Your task to perform on an android device: all mails in gmail Image 0: 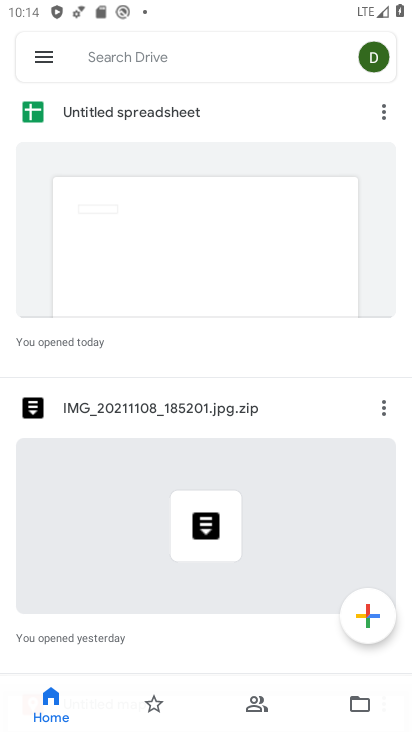
Step 0: press home button
Your task to perform on an android device: all mails in gmail Image 1: 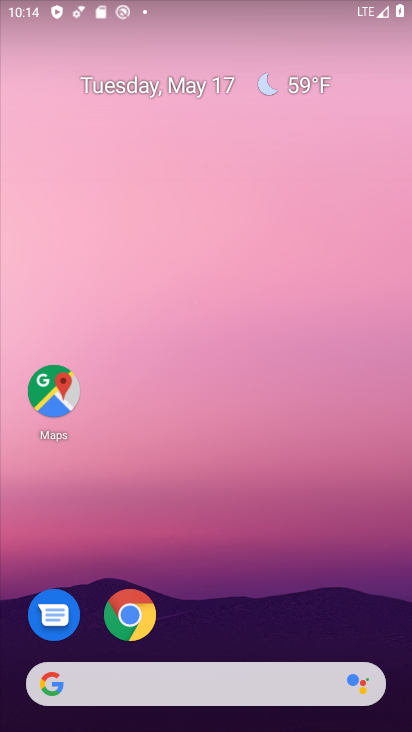
Step 1: drag from (209, 675) to (311, 107)
Your task to perform on an android device: all mails in gmail Image 2: 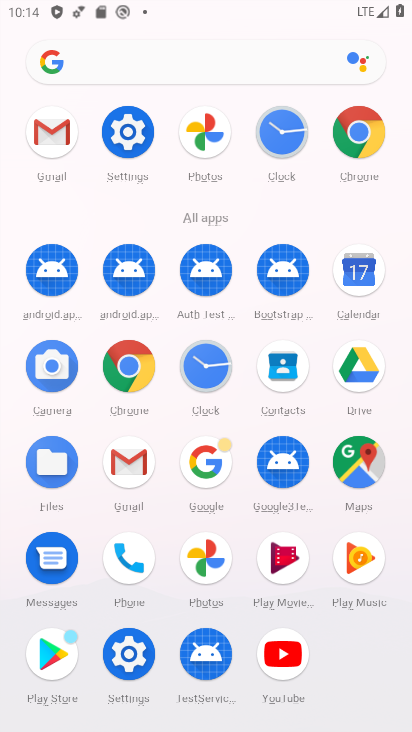
Step 2: click (63, 138)
Your task to perform on an android device: all mails in gmail Image 3: 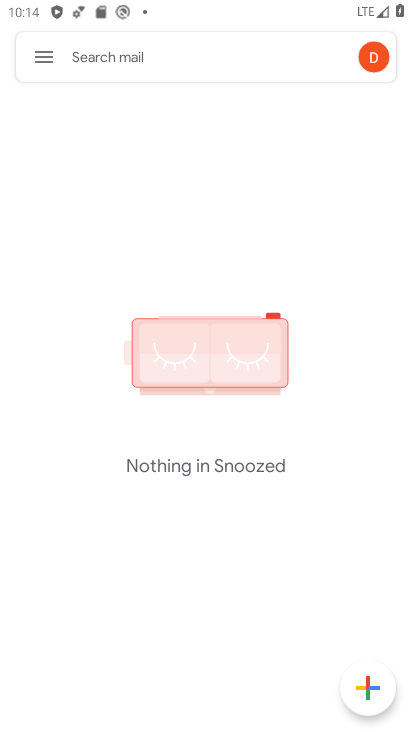
Step 3: click (41, 61)
Your task to perform on an android device: all mails in gmail Image 4: 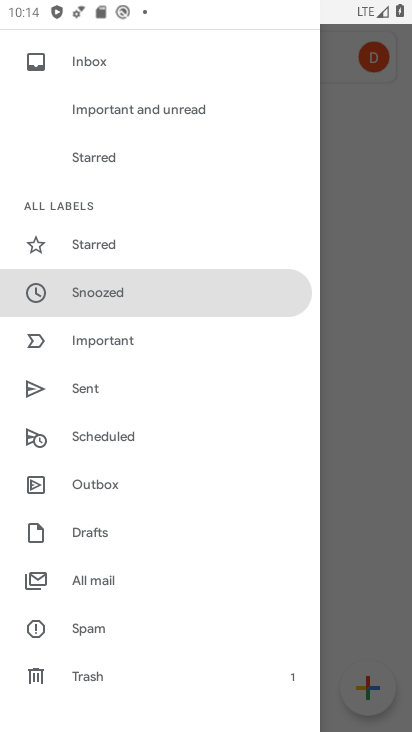
Step 4: click (113, 580)
Your task to perform on an android device: all mails in gmail Image 5: 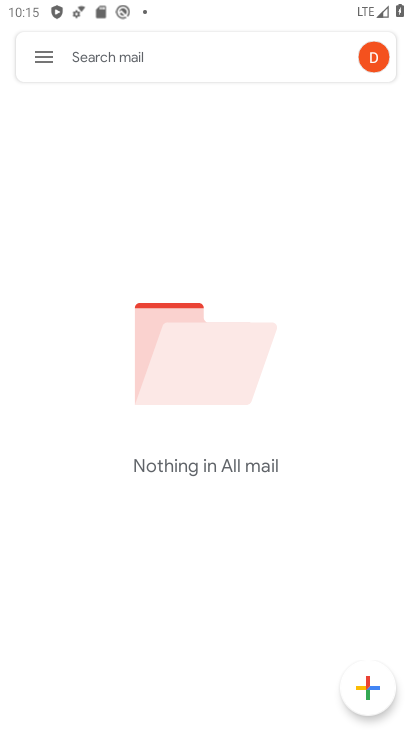
Step 5: task complete